Your task to perform on an android device: turn pop-ups on in chrome Image 0: 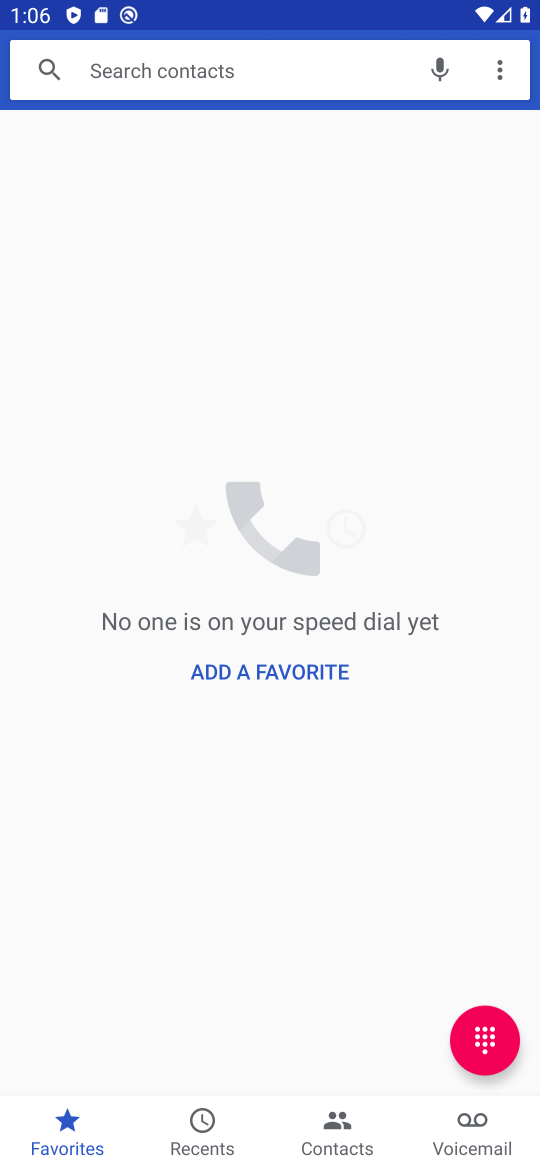
Step 0: press home button
Your task to perform on an android device: turn pop-ups on in chrome Image 1: 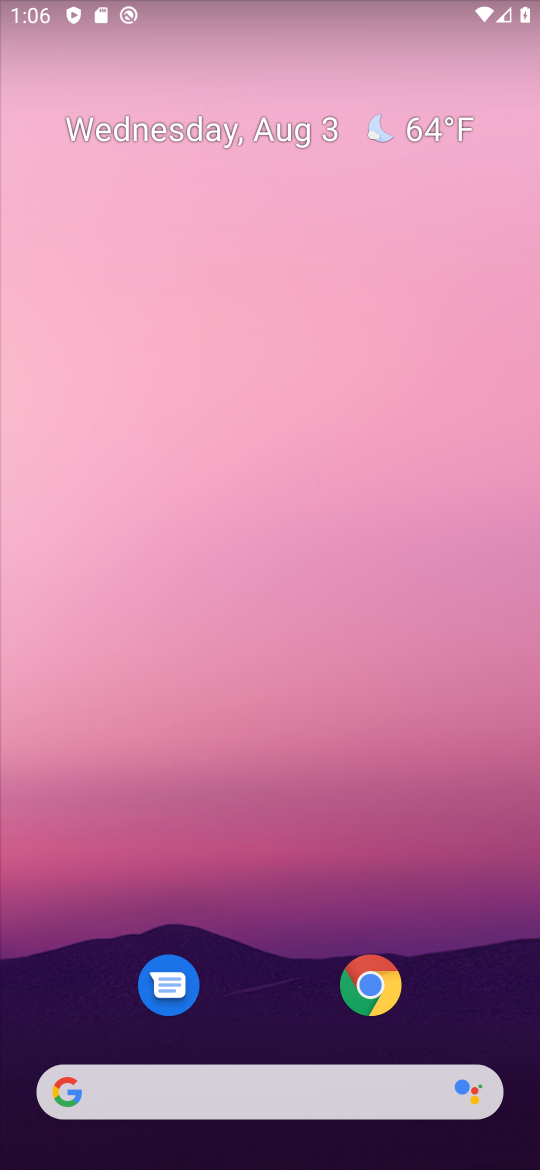
Step 1: drag from (275, 1008) to (245, 322)
Your task to perform on an android device: turn pop-ups on in chrome Image 2: 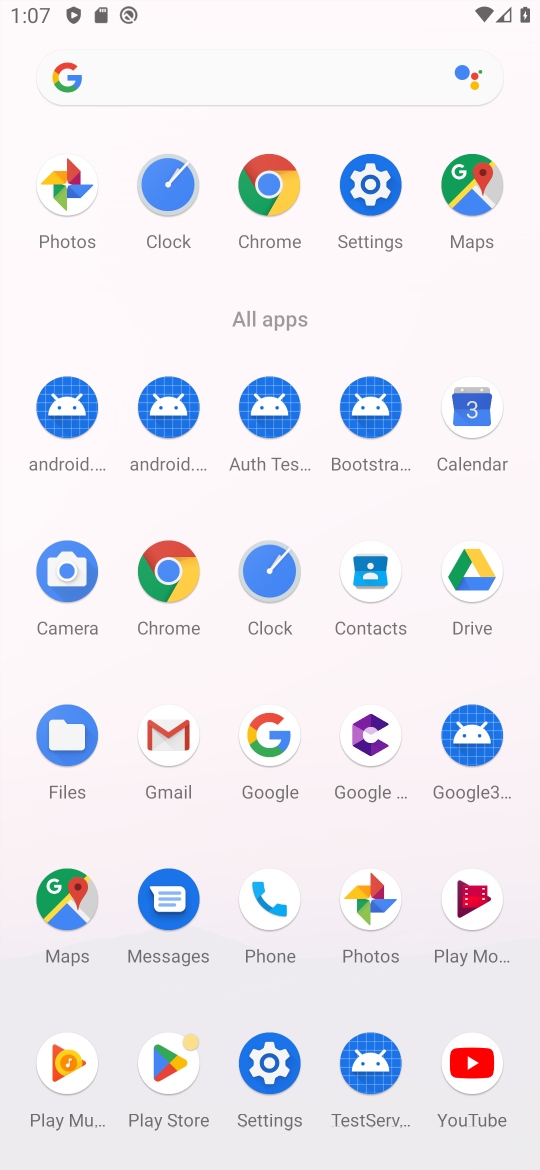
Step 2: click (261, 168)
Your task to perform on an android device: turn pop-ups on in chrome Image 3: 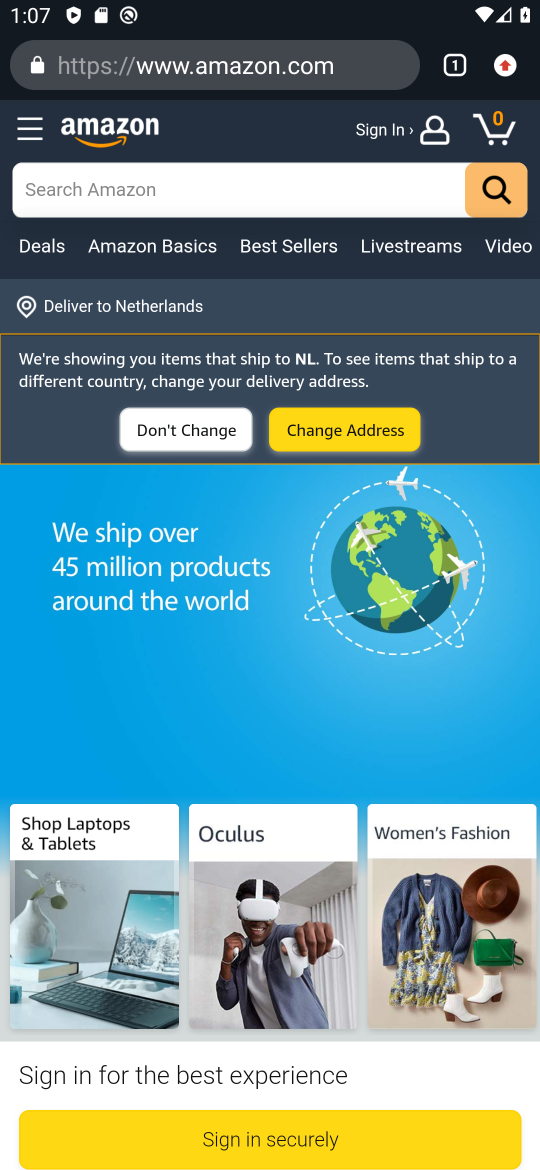
Step 3: click (507, 64)
Your task to perform on an android device: turn pop-ups on in chrome Image 4: 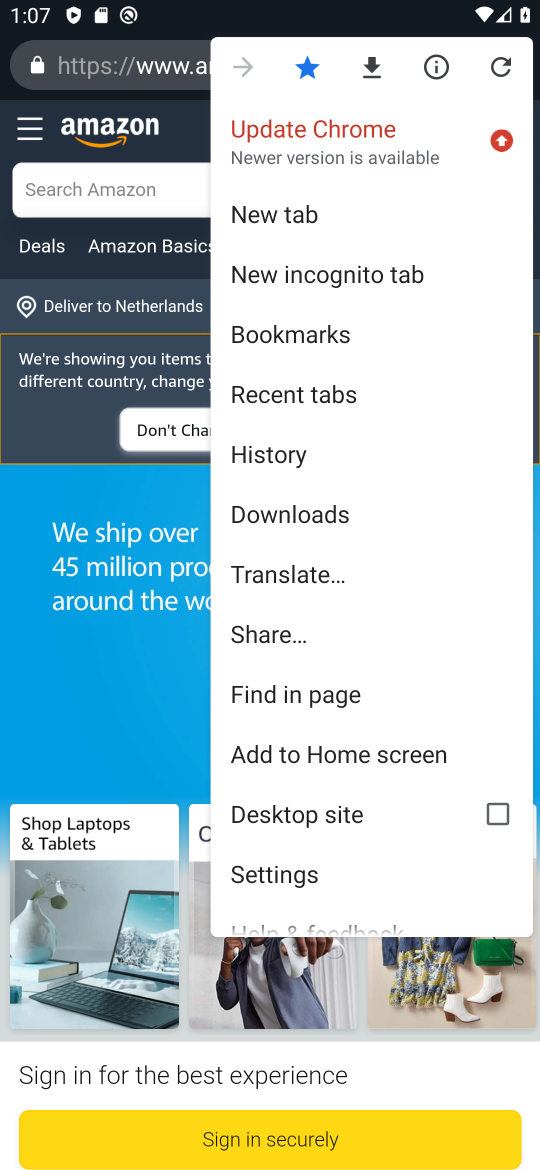
Step 4: click (329, 867)
Your task to perform on an android device: turn pop-ups on in chrome Image 5: 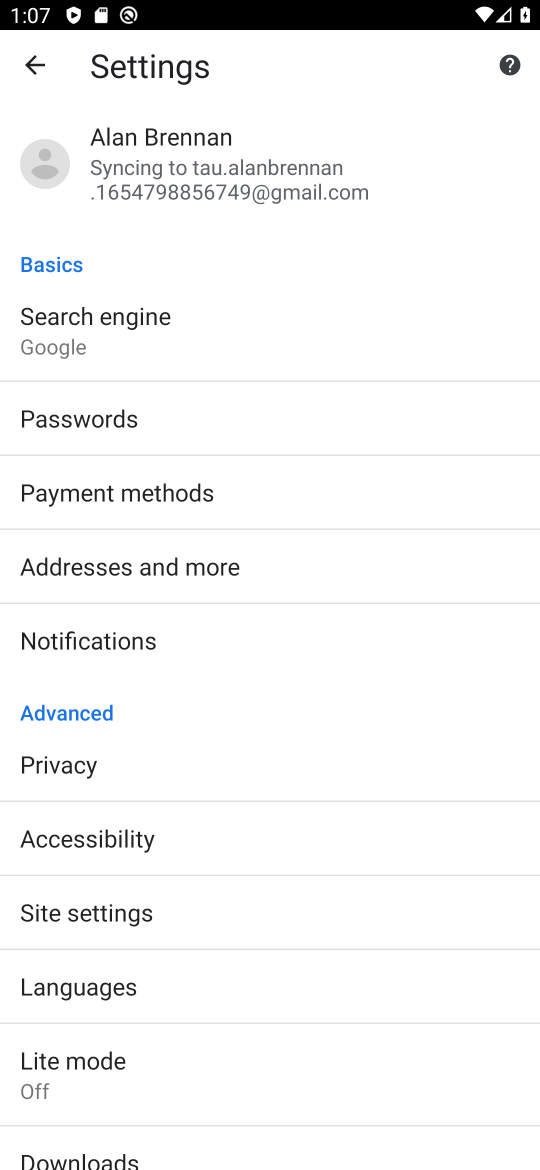
Step 5: click (176, 911)
Your task to perform on an android device: turn pop-ups on in chrome Image 6: 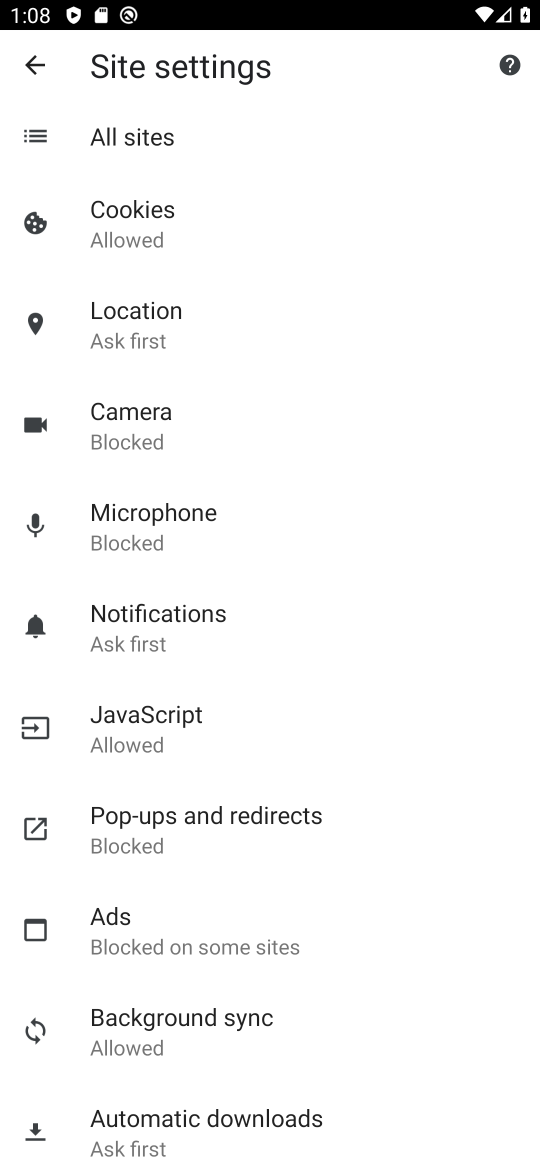
Step 6: click (199, 822)
Your task to perform on an android device: turn pop-ups on in chrome Image 7: 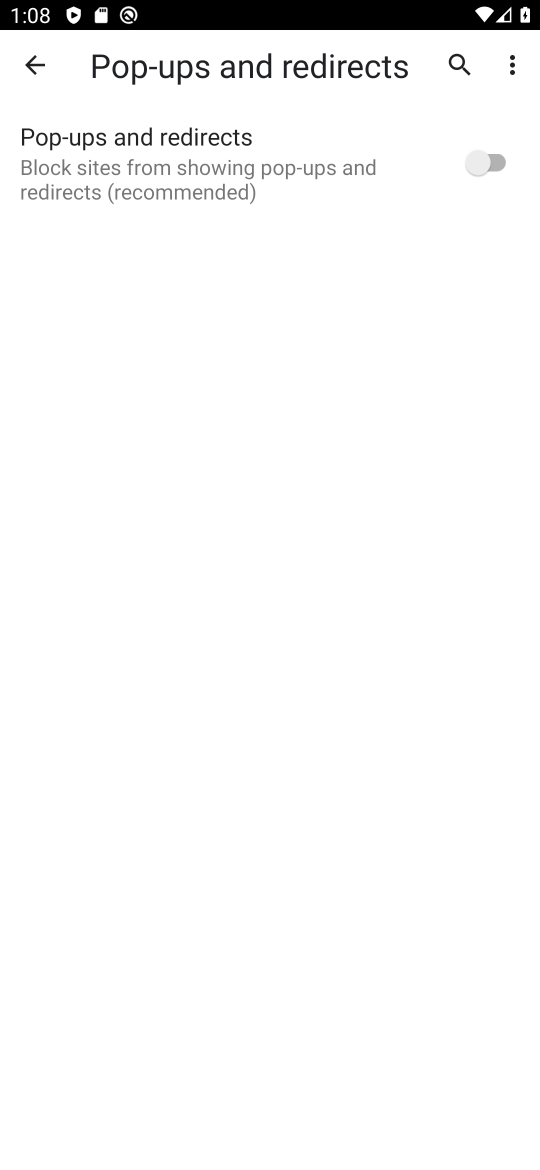
Step 7: click (493, 160)
Your task to perform on an android device: turn pop-ups on in chrome Image 8: 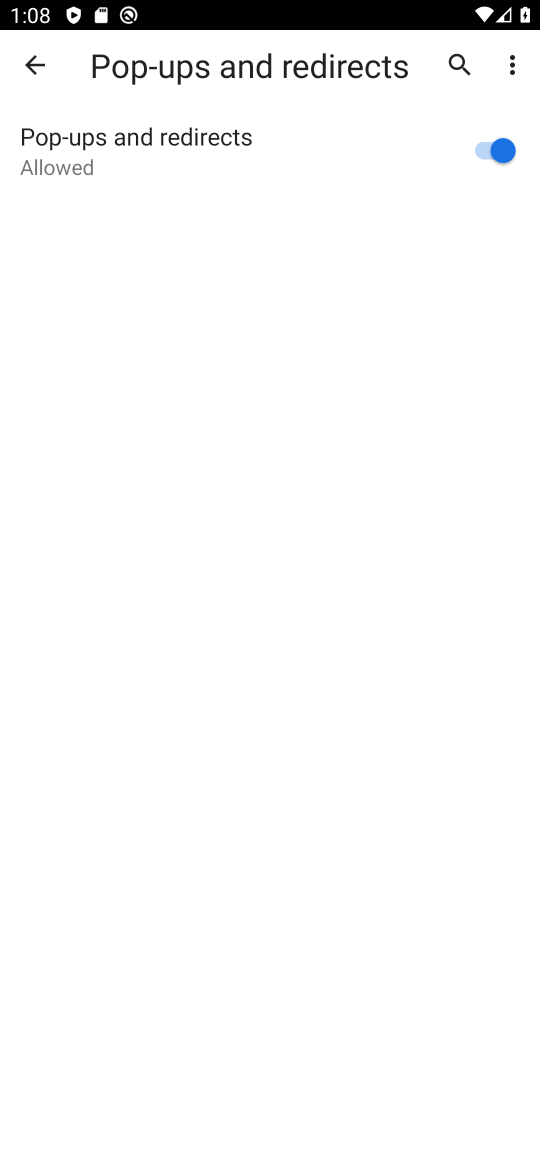
Step 8: task complete